Your task to perform on an android device: turn off smart reply in the gmail app Image 0: 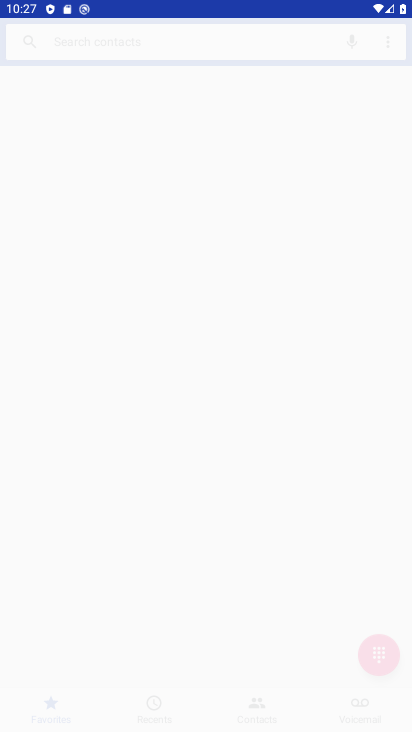
Step 0: drag from (220, 680) to (273, 176)
Your task to perform on an android device: turn off smart reply in the gmail app Image 1: 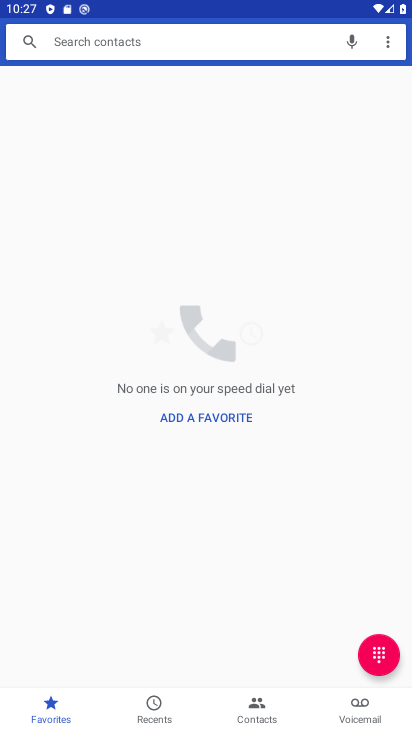
Step 1: press home button
Your task to perform on an android device: turn off smart reply in the gmail app Image 2: 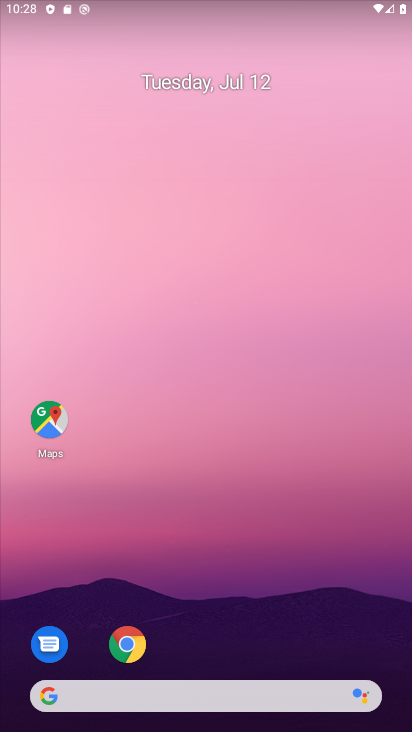
Step 2: drag from (195, 671) to (195, 165)
Your task to perform on an android device: turn off smart reply in the gmail app Image 3: 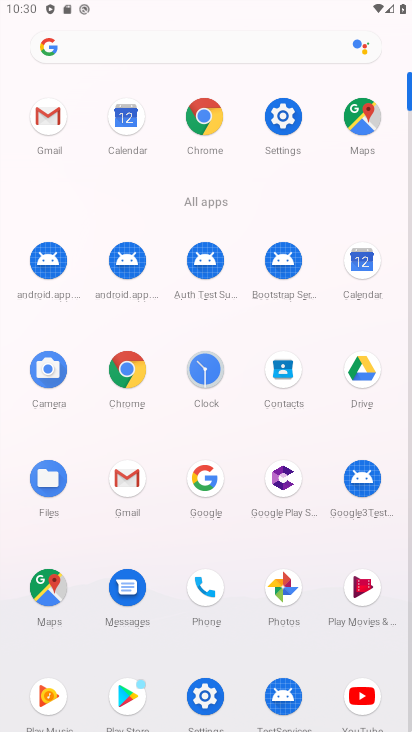
Step 3: click (133, 473)
Your task to perform on an android device: turn off smart reply in the gmail app Image 4: 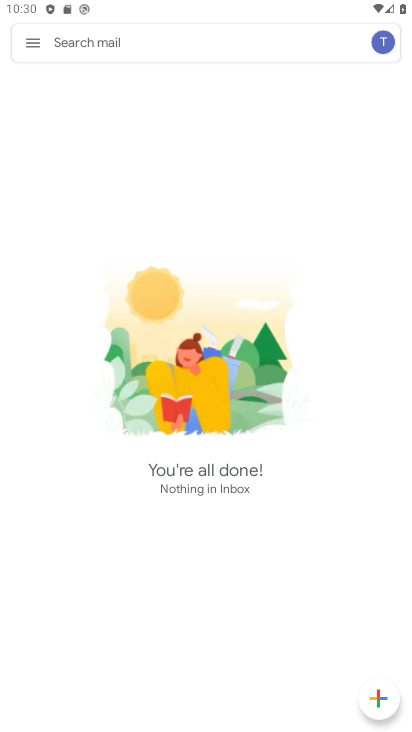
Step 4: click (41, 38)
Your task to perform on an android device: turn off smart reply in the gmail app Image 5: 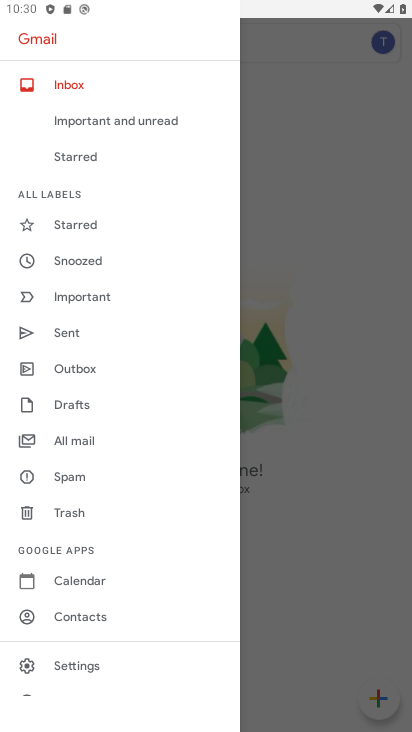
Step 5: click (74, 670)
Your task to perform on an android device: turn off smart reply in the gmail app Image 6: 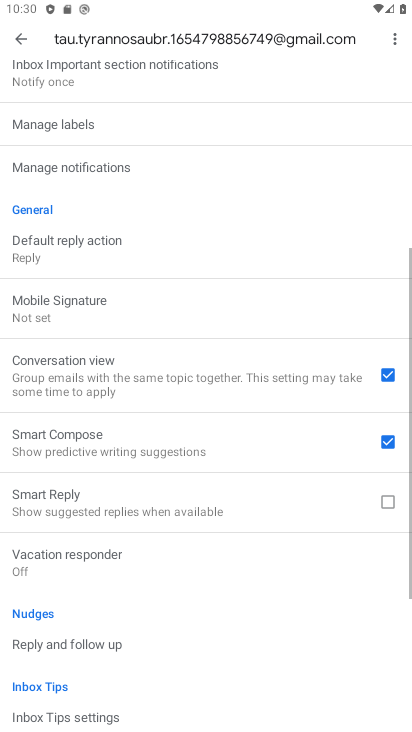
Step 6: task complete